Your task to perform on an android device: Search for lenovo thinkpad on ebay.com, select the first entry, add it to the cart, then select checkout. Image 0: 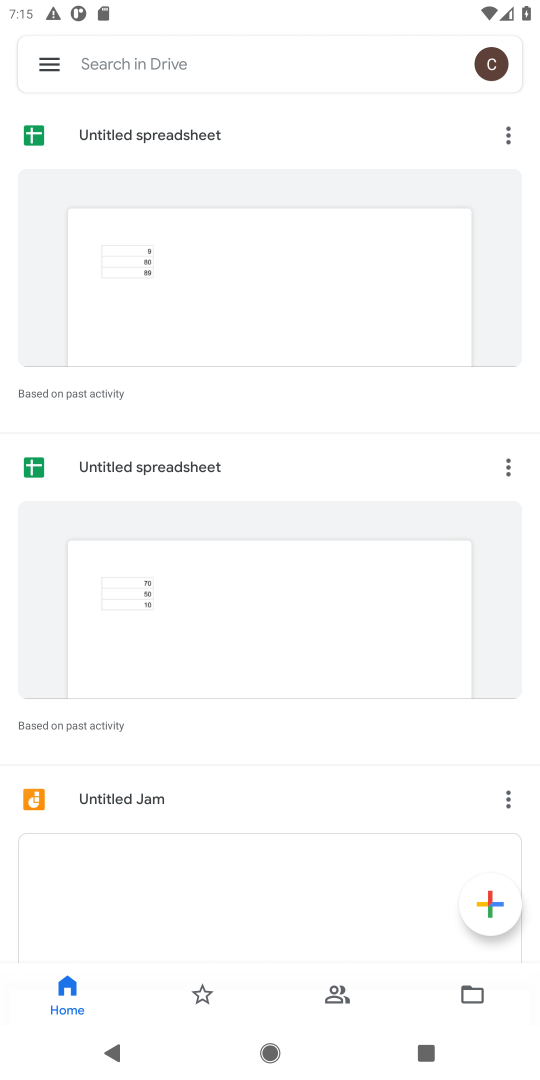
Step 0: press home button
Your task to perform on an android device: Search for lenovo thinkpad on ebay.com, select the first entry, add it to the cart, then select checkout. Image 1: 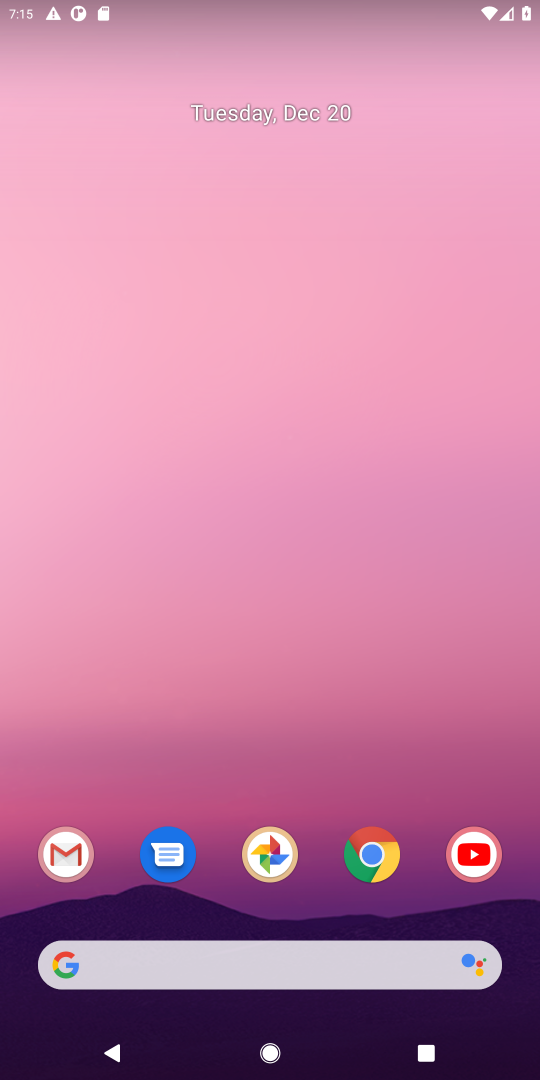
Step 1: click (368, 860)
Your task to perform on an android device: Search for lenovo thinkpad on ebay.com, select the first entry, add it to the cart, then select checkout. Image 2: 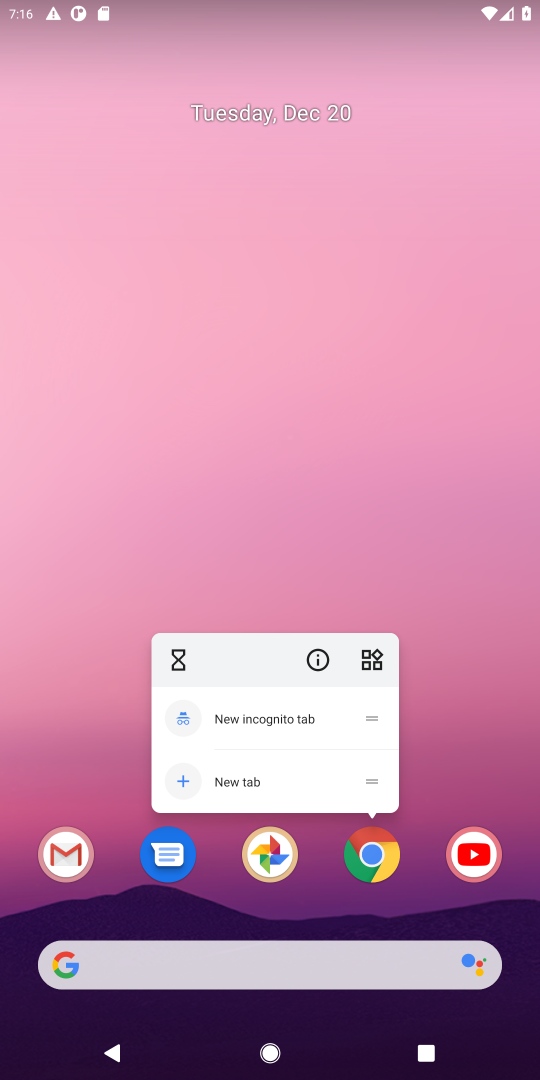
Step 2: click (368, 860)
Your task to perform on an android device: Search for lenovo thinkpad on ebay.com, select the first entry, add it to the cart, then select checkout. Image 3: 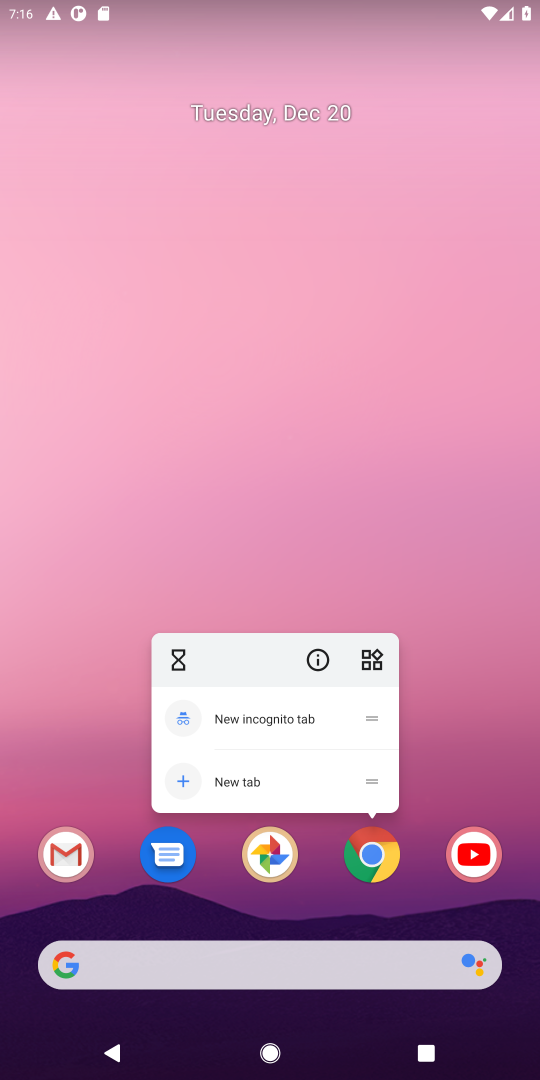
Step 3: click (373, 865)
Your task to perform on an android device: Search for lenovo thinkpad on ebay.com, select the first entry, add it to the cart, then select checkout. Image 4: 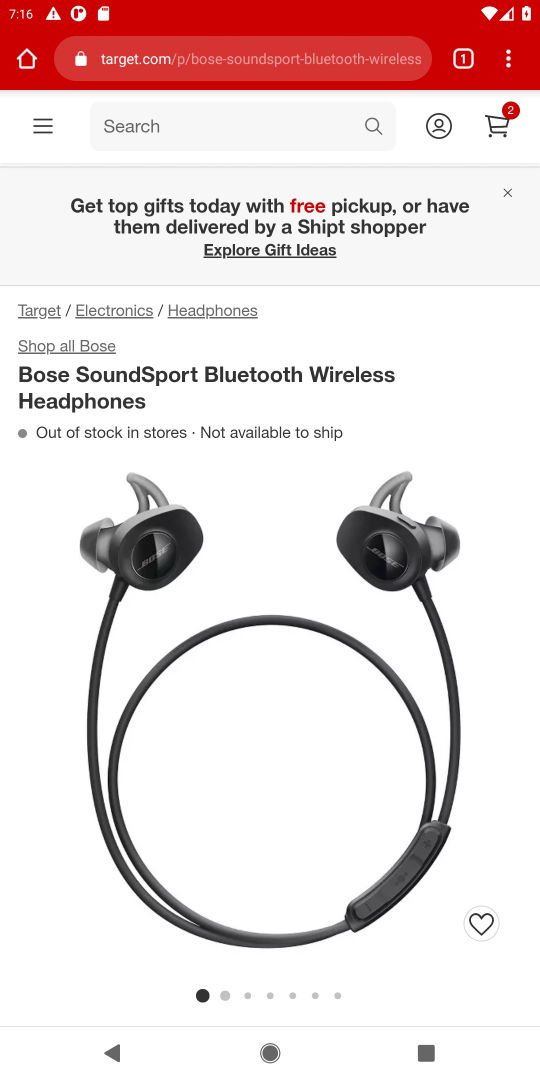
Step 4: click (138, 63)
Your task to perform on an android device: Search for lenovo thinkpad on ebay.com, select the first entry, add it to the cart, then select checkout. Image 5: 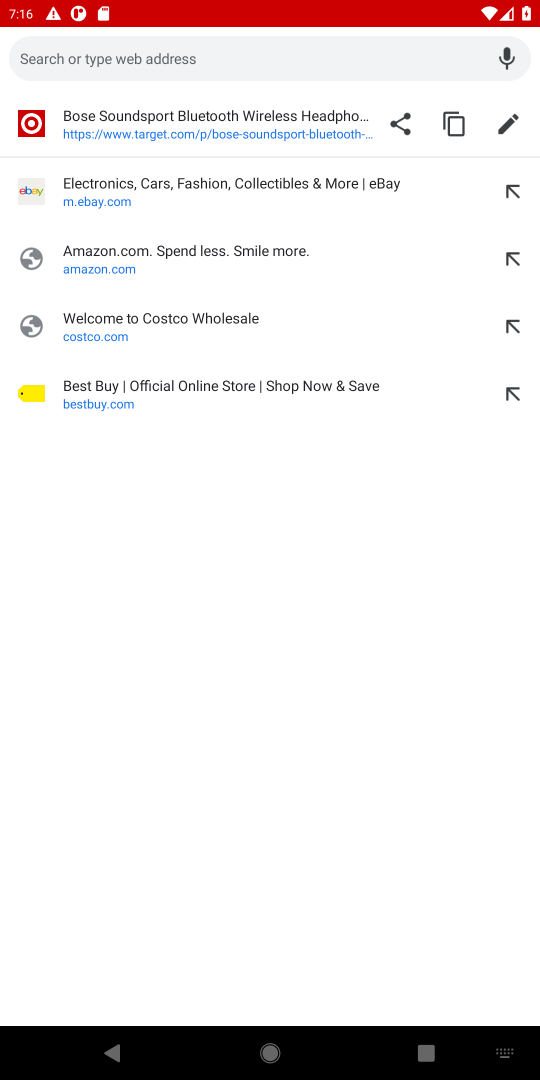
Step 5: click (84, 202)
Your task to perform on an android device: Search for lenovo thinkpad on ebay.com, select the first entry, add it to the cart, then select checkout. Image 6: 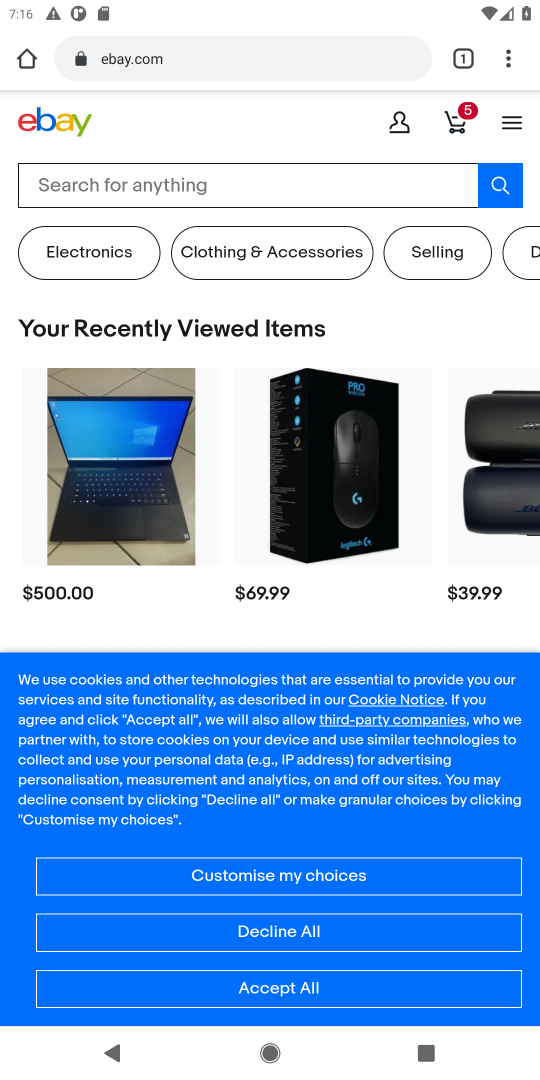
Step 6: click (78, 197)
Your task to perform on an android device: Search for lenovo thinkpad on ebay.com, select the first entry, add it to the cart, then select checkout. Image 7: 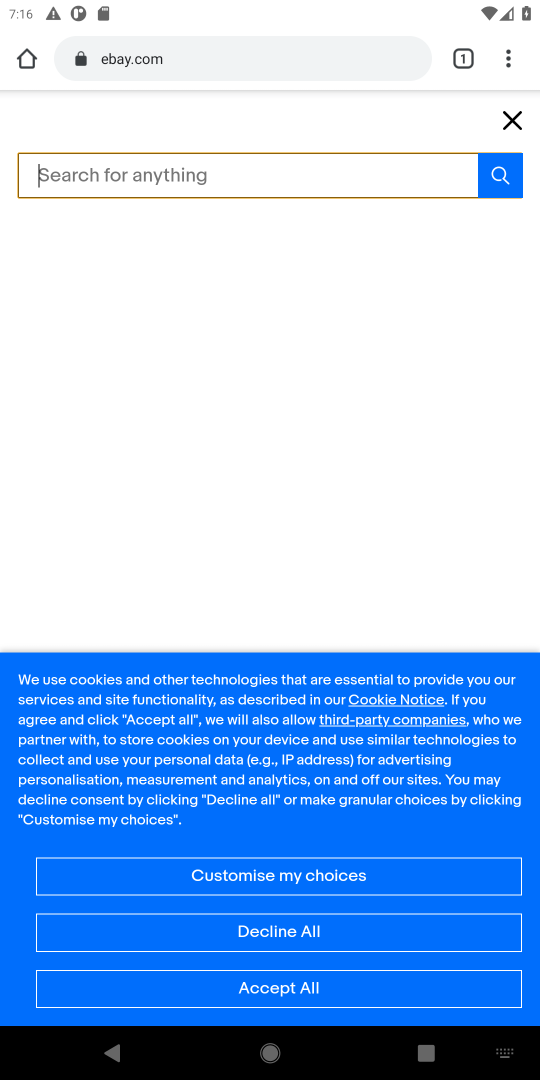
Step 7: type "lenovo thinkpad"
Your task to perform on an android device: Search for lenovo thinkpad on ebay.com, select the first entry, add it to the cart, then select checkout. Image 8: 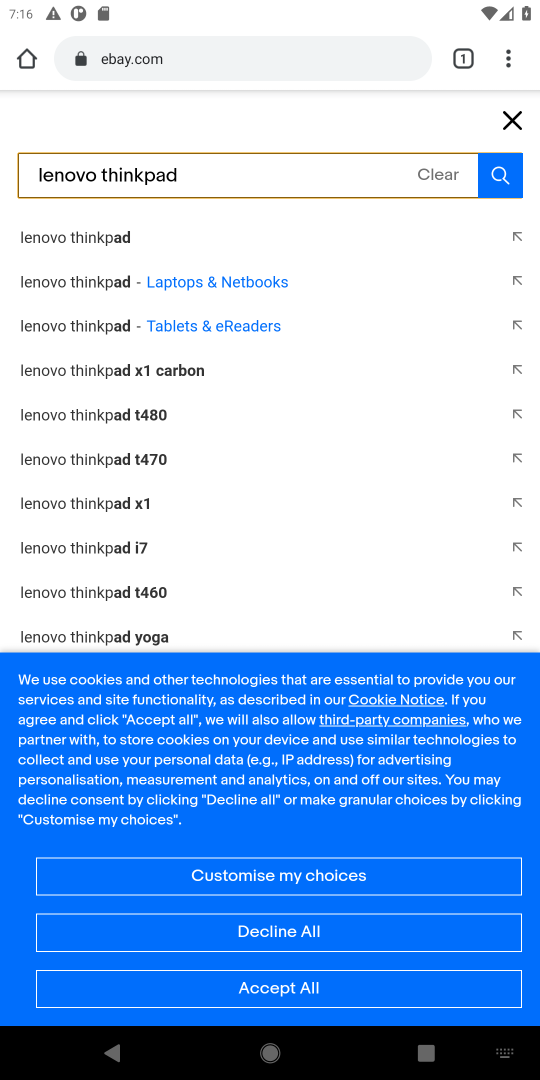
Step 8: click (87, 236)
Your task to perform on an android device: Search for lenovo thinkpad on ebay.com, select the first entry, add it to the cart, then select checkout. Image 9: 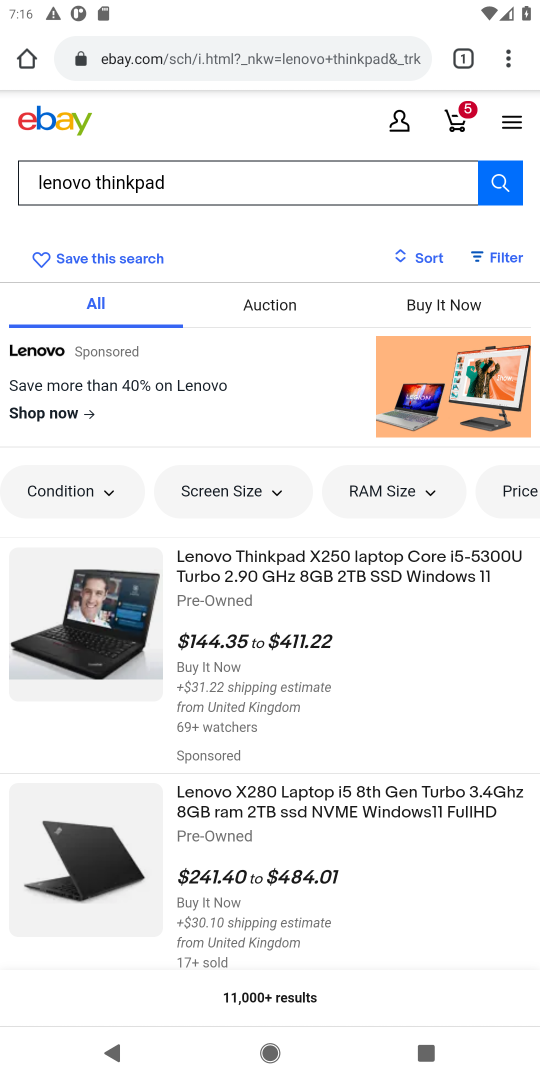
Step 9: click (258, 590)
Your task to perform on an android device: Search for lenovo thinkpad on ebay.com, select the first entry, add it to the cart, then select checkout. Image 10: 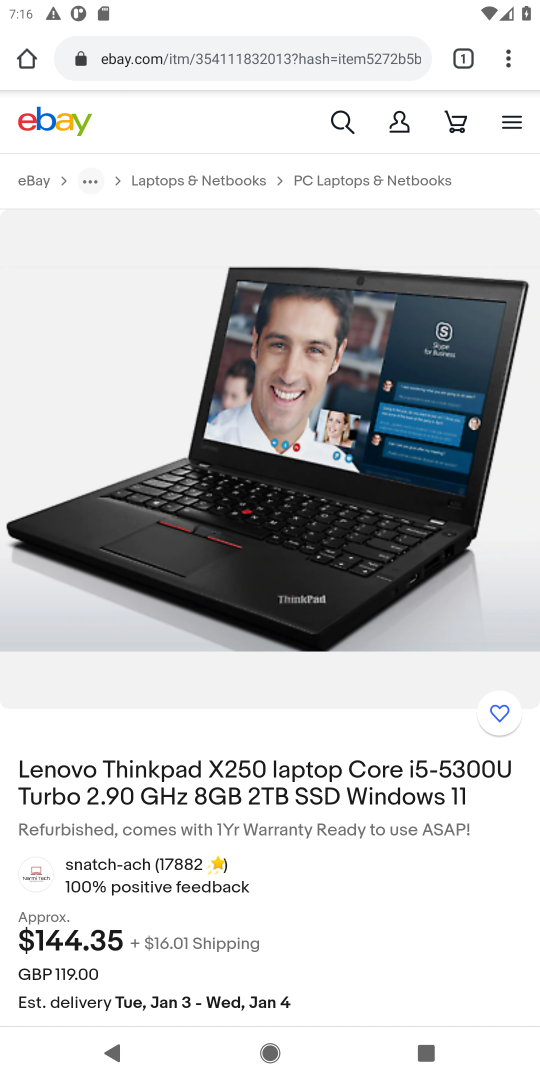
Step 10: drag from (250, 788) to (221, 297)
Your task to perform on an android device: Search for lenovo thinkpad on ebay.com, select the first entry, add it to the cart, then select checkout. Image 11: 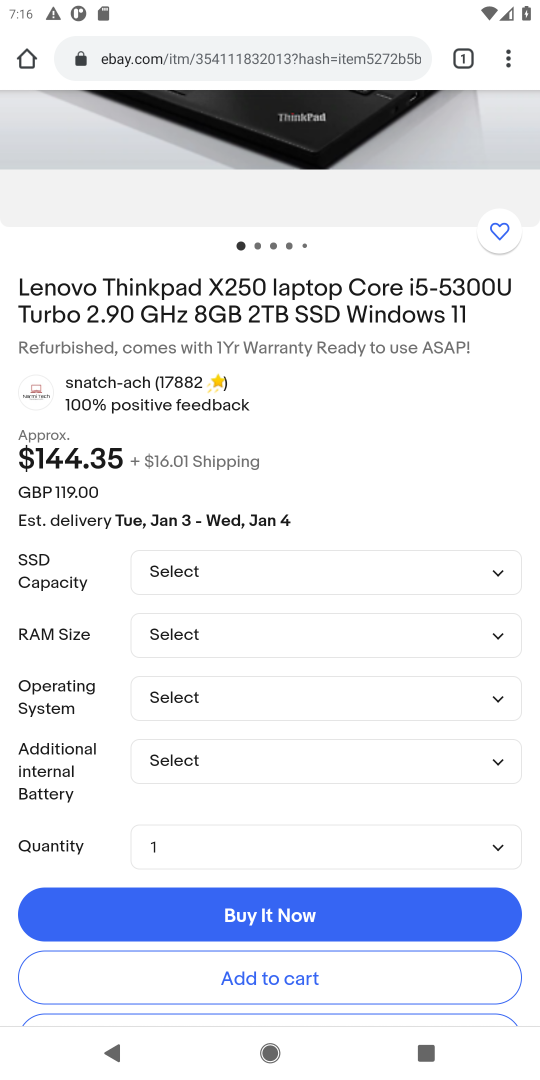
Step 11: click (214, 977)
Your task to perform on an android device: Search for lenovo thinkpad on ebay.com, select the first entry, add it to the cart, then select checkout. Image 12: 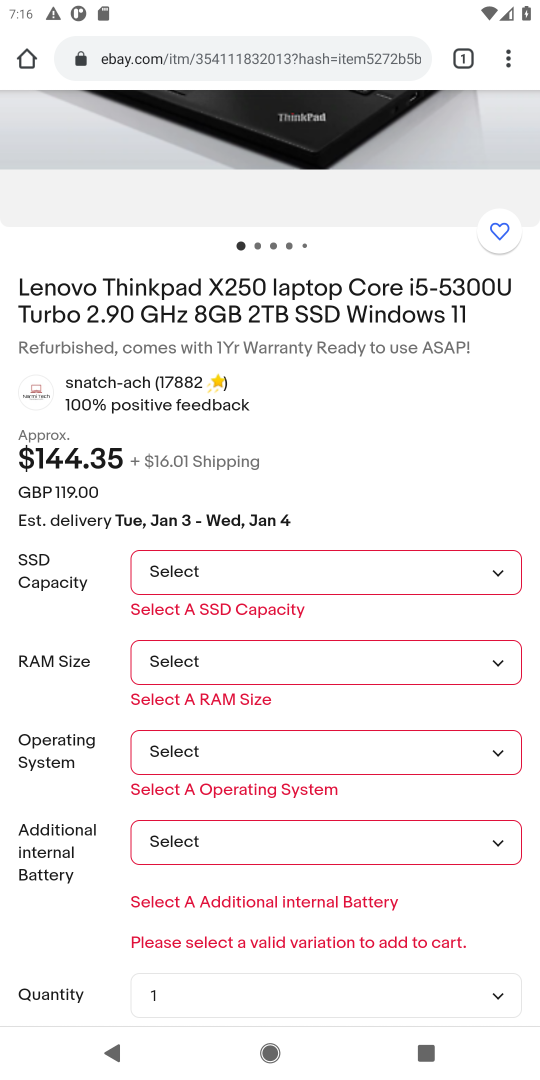
Step 12: click (497, 577)
Your task to perform on an android device: Search for lenovo thinkpad on ebay.com, select the first entry, add it to the cart, then select checkout. Image 13: 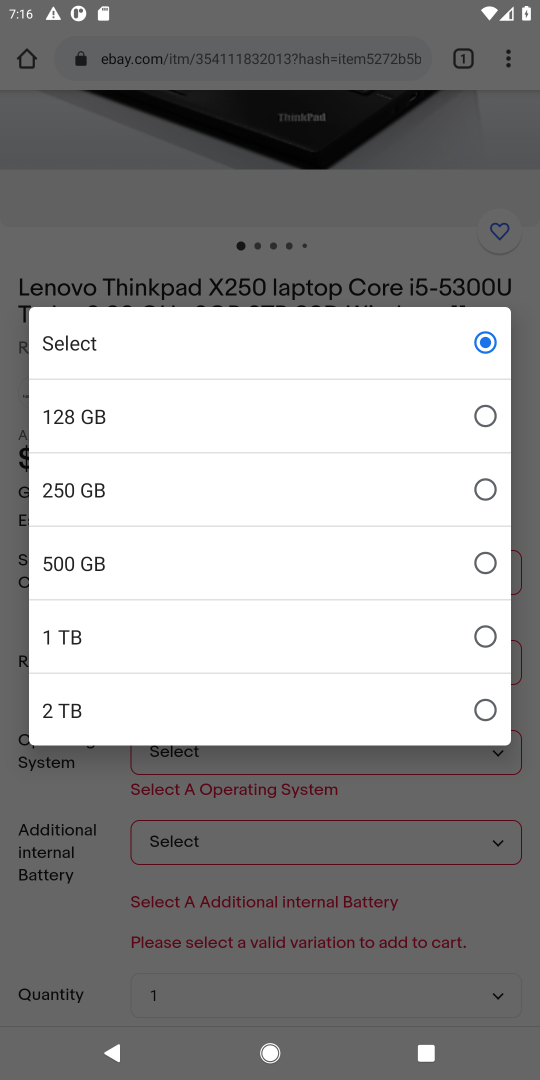
Step 13: click (69, 425)
Your task to perform on an android device: Search for lenovo thinkpad on ebay.com, select the first entry, add it to the cart, then select checkout. Image 14: 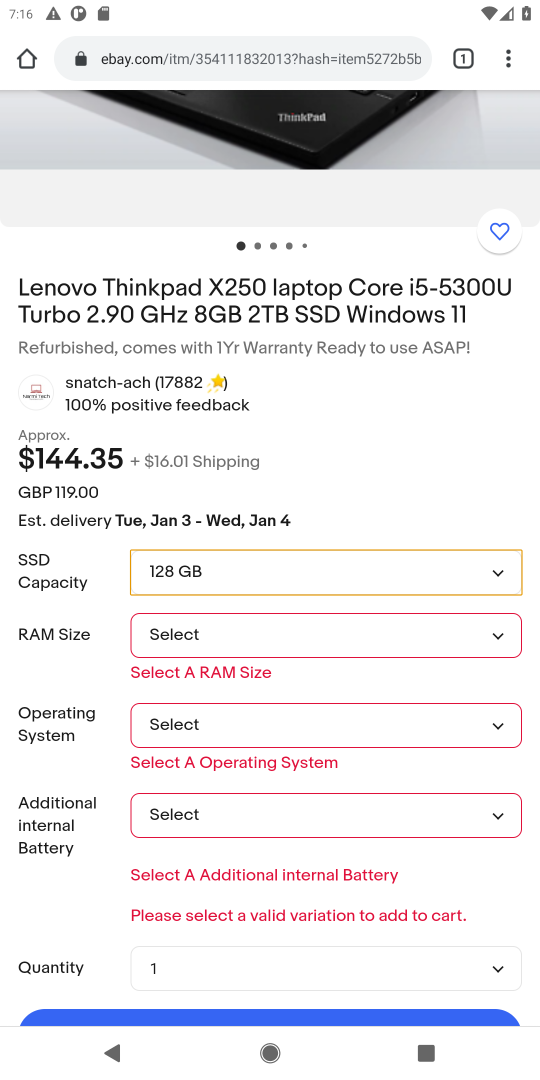
Step 14: click (518, 632)
Your task to perform on an android device: Search for lenovo thinkpad on ebay.com, select the first entry, add it to the cart, then select checkout. Image 15: 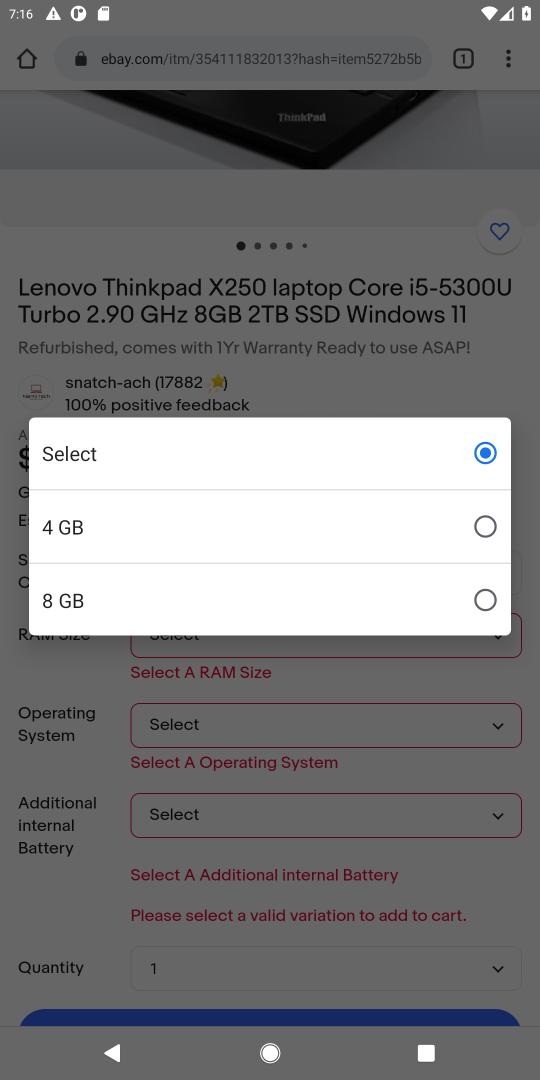
Step 15: click (59, 610)
Your task to perform on an android device: Search for lenovo thinkpad on ebay.com, select the first entry, add it to the cart, then select checkout. Image 16: 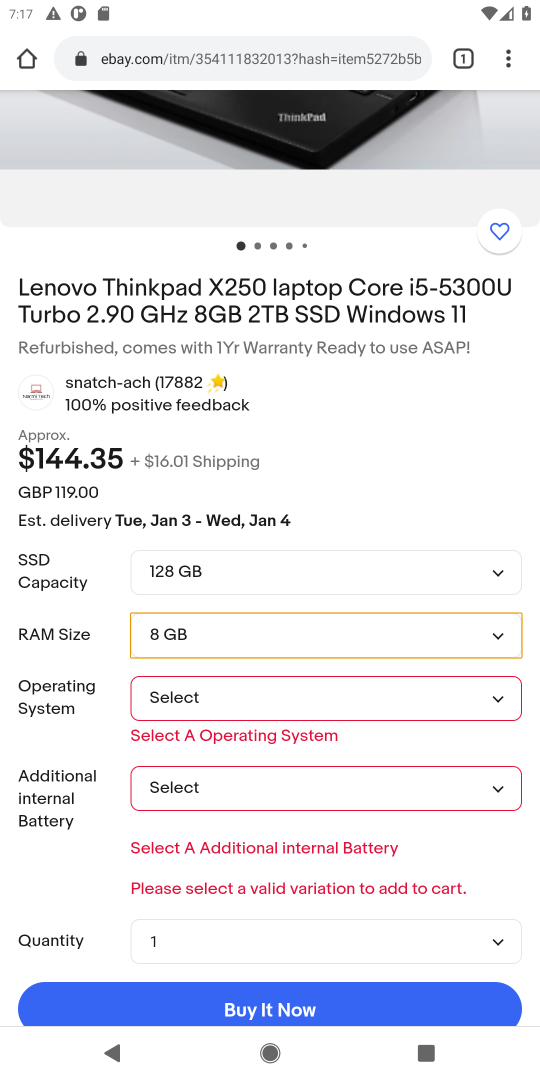
Step 16: click (500, 701)
Your task to perform on an android device: Search for lenovo thinkpad on ebay.com, select the first entry, add it to the cart, then select checkout. Image 17: 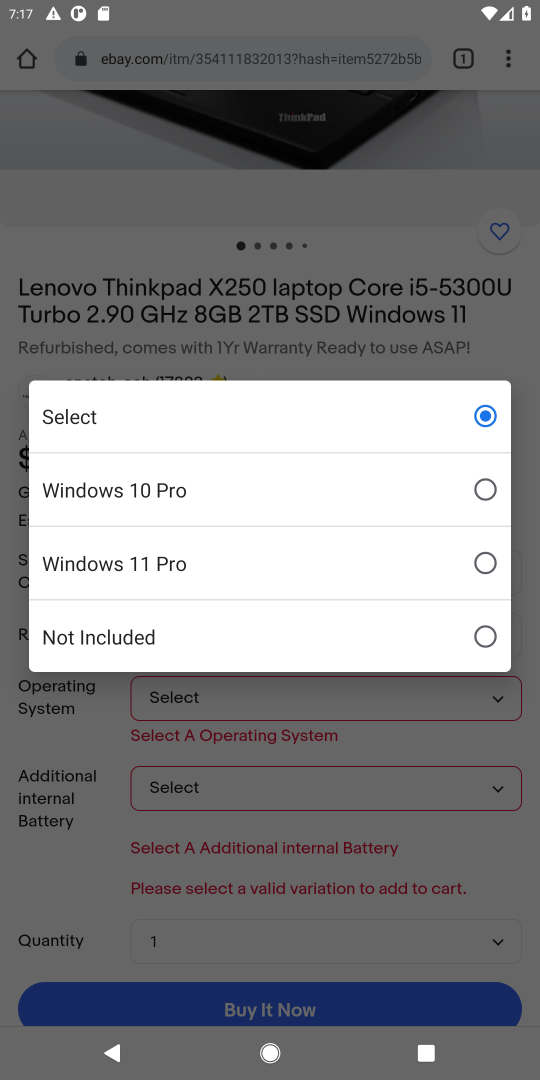
Step 17: click (166, 561)
Your task to perform on an android device: Search for lenovo thinkpad on ebay.com, select the first entry, add it to the cart, then select checkout. Image 18: 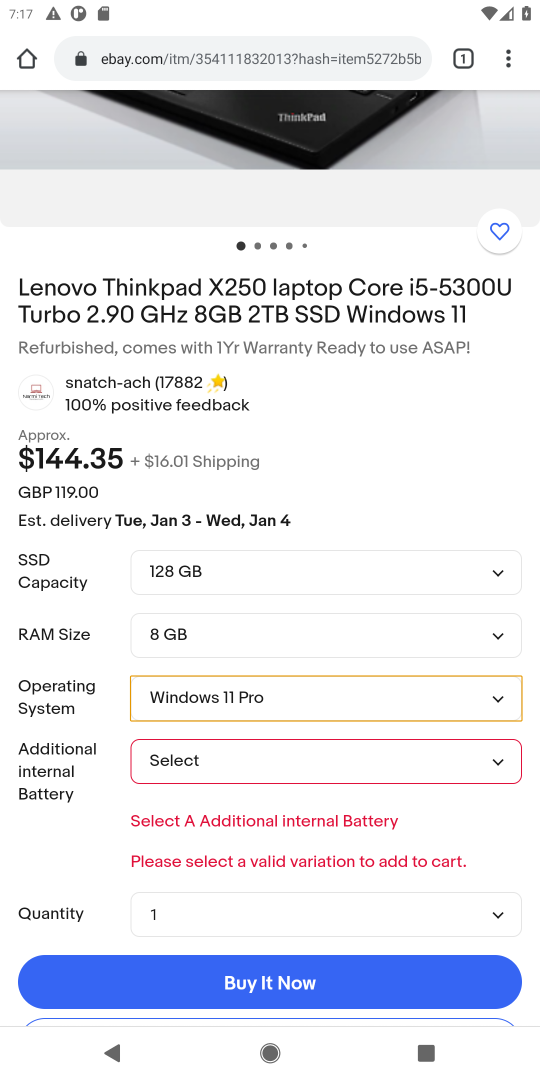
Step 18: click (501, 766)
Your task to perform on an android device: Search for lenovo thinkpad on ebay.com, select the first entry, add it to the cart, then select checkout. Image 19: 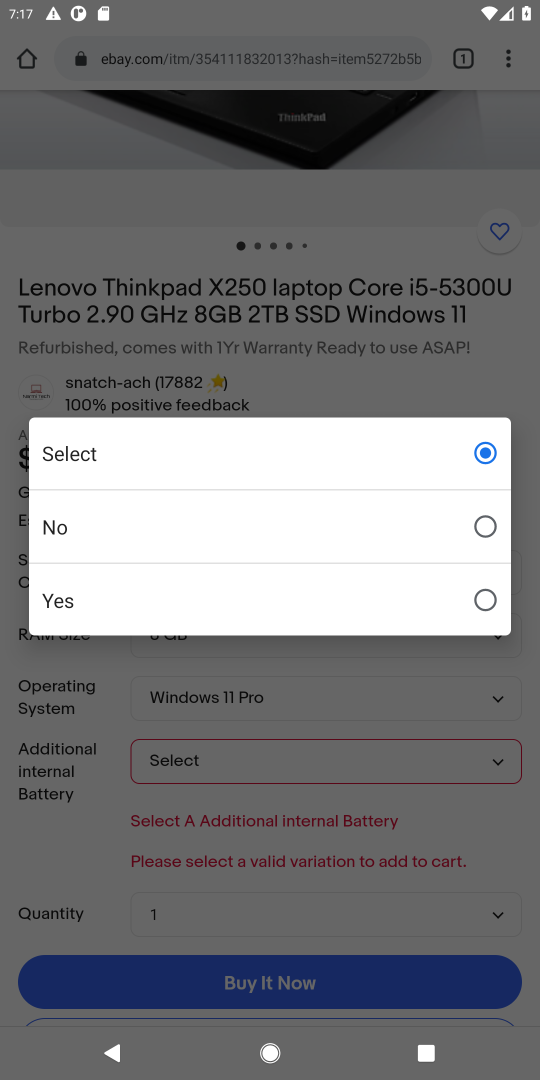
Step 19: click (52, 544)
Your task to perform on an android device: Search for lenovo thinkpad on ebay.com, select the first entry, add it to the cart, then select checkout. Image 20: 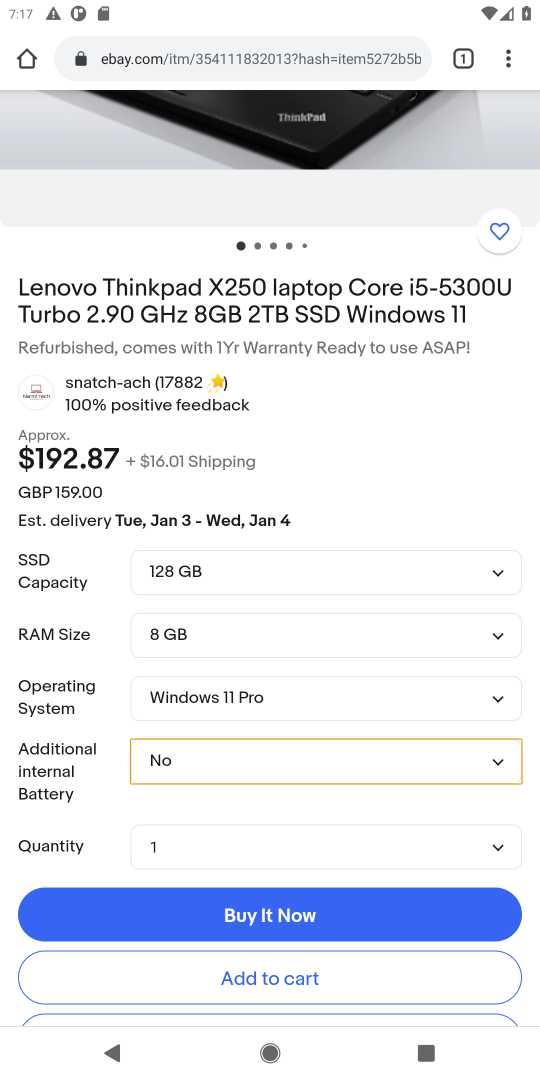
Step 20: click (276, 974)
Your task to perform on an android device: Search for lenovo thinkpad on ebay.com, select the first entry, add it to the cart, then select checkout. Image 21: 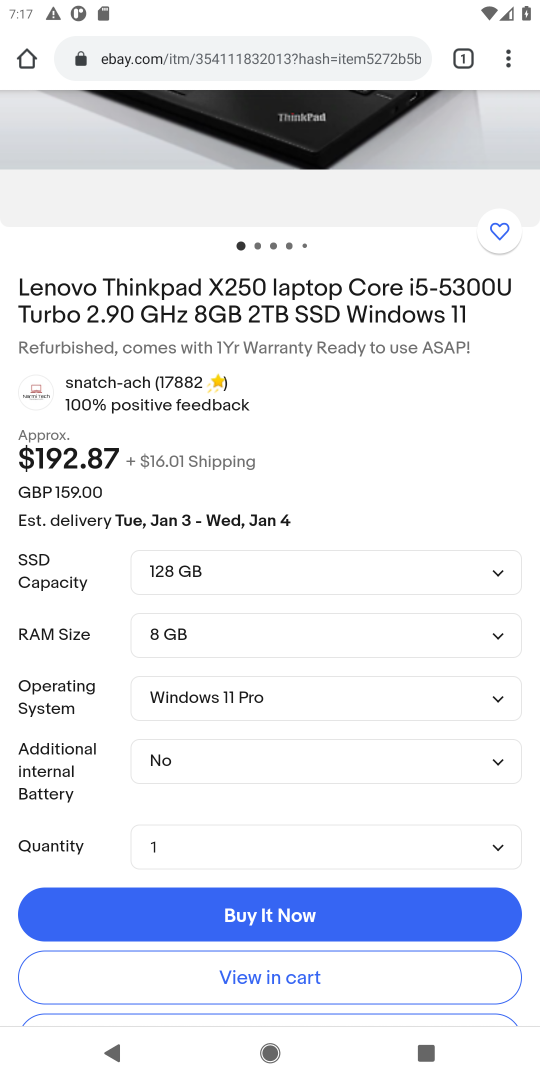
Step 21: click (268, 982)
Your task to perform on an android device: Search for lenovo thinkpad on ebay.com, select the first entry, add it to the cart, then select checkout. Image 22: 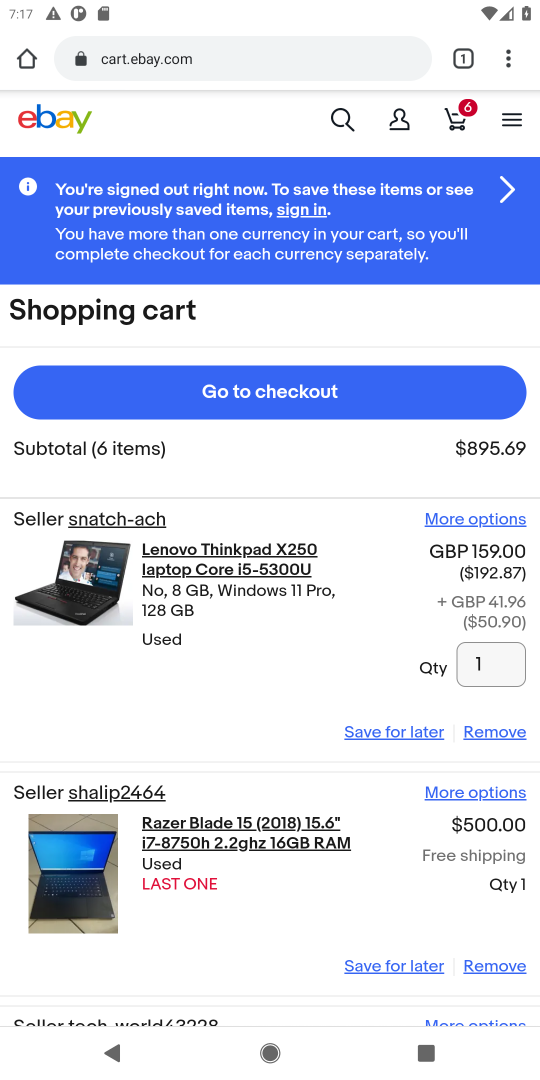
Step 22: click (267, 406)
Your task to perform on an android device: Search for lenovo thinkpad on ebay.com, select the first entry, add it to the cart, then select checkout. Image 23: 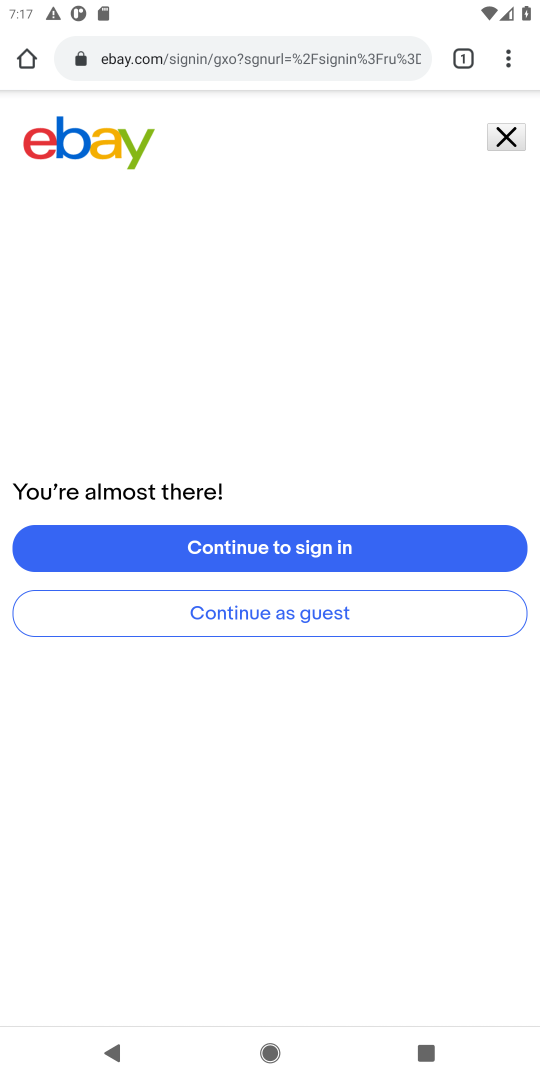
Step 23: task complete